Your task to perform on an android device: turn on location history Image 0: 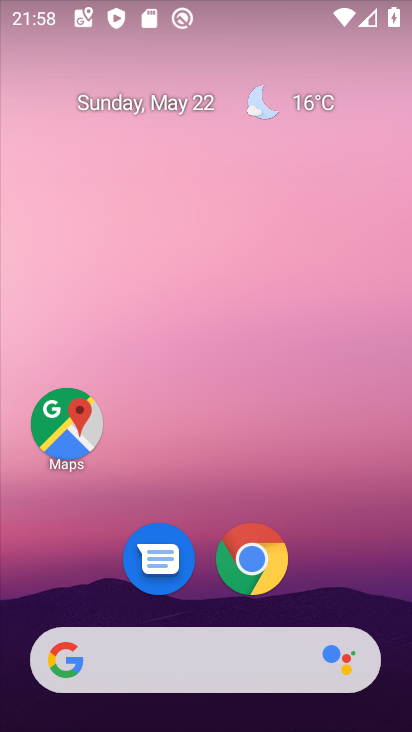
Step 0: drag from (282, 680) to (174, 112)
Your task to perform on an android device: turn on location history Image 1: 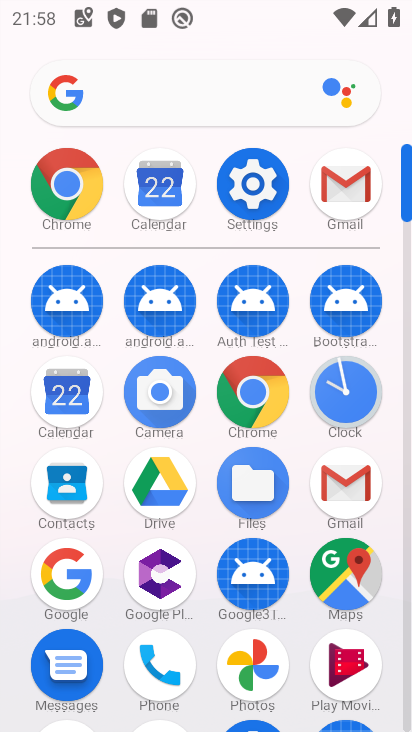
Step 1: click (250, 203)
Your task to perform on an android device: turn on location history Image 2: 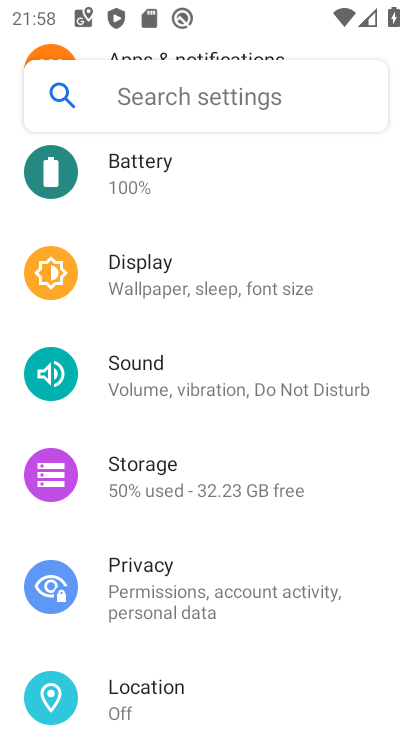
Step 2: click (150, 101)
Your task to perform on an android device: turn on location history Image 3: 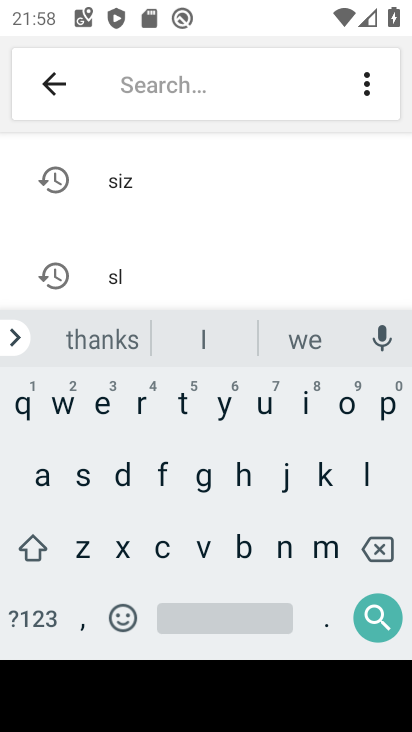
Step 3: click (369, 463)
Your task to perform on an android device: turn on location history Image 4: 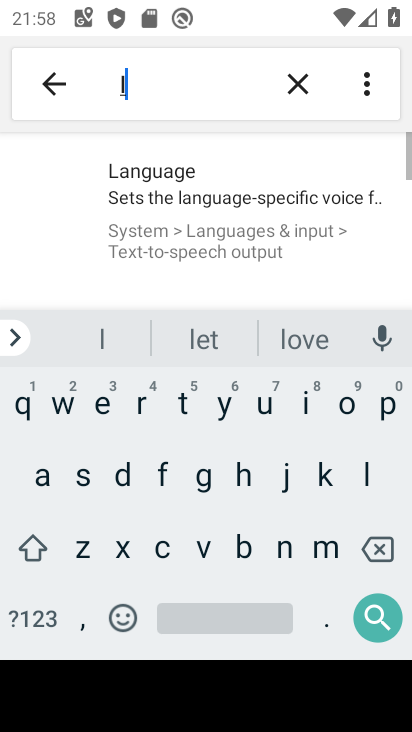
Step 4: click (343, 406)
Your task to perform on an android device: turn on location history Image 5: 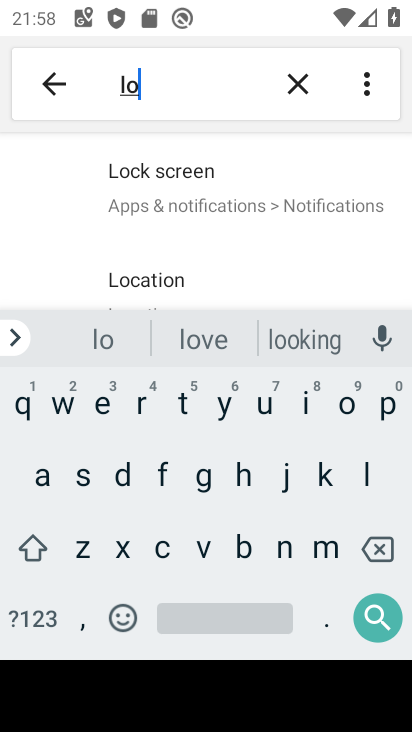
Step 5: click (141, 278)
Your task to perform on an android device: turn on location history Image 6: 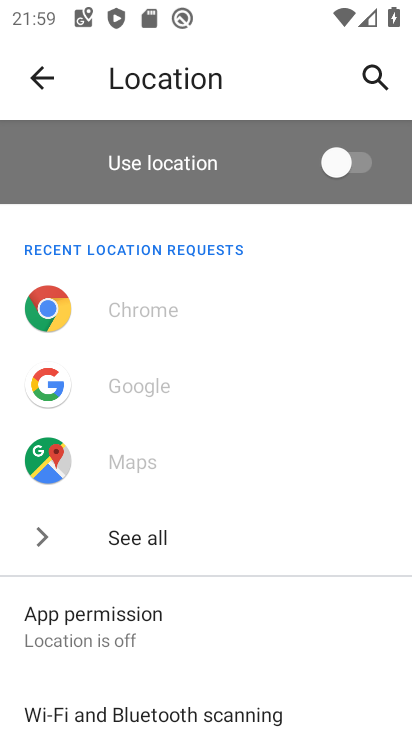
Step 6: click (161, 546)
Your task to perform on an android device: turn on location history Image 7: 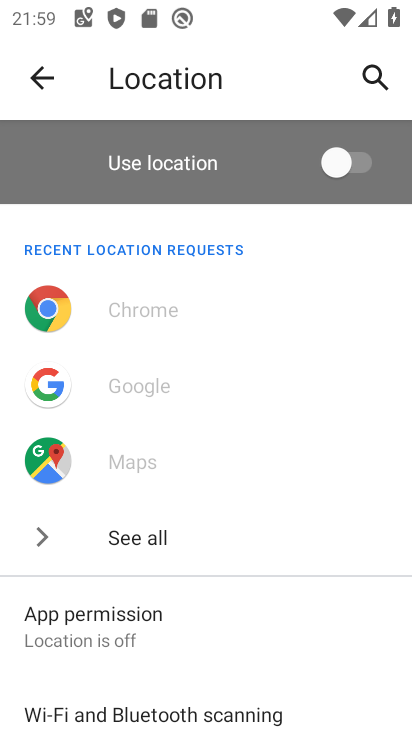
Step 7: task complete